Your task to perform on an android device: delete location history Image 0: 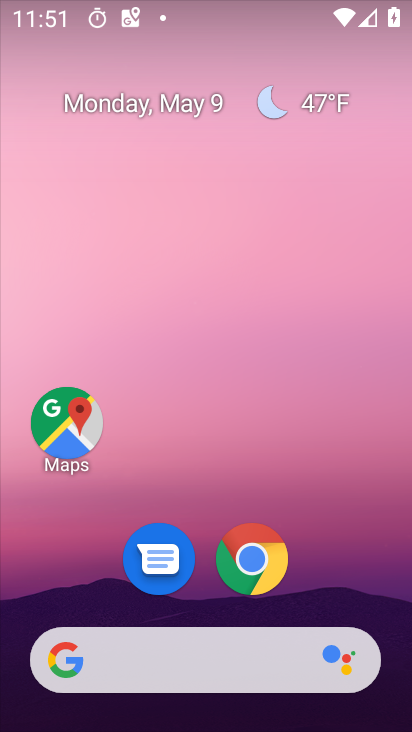
Step 0: click (50, 421)
Your task to perform on an android device: delete location history Image 1: 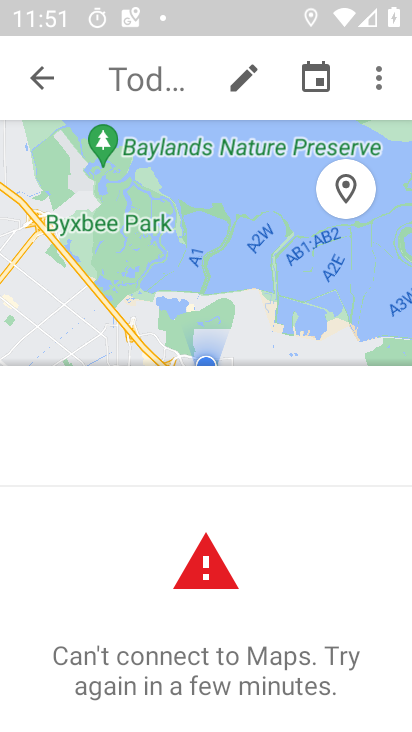
Step 1: click (94, 133)
Your task to perform on an android device: delete location history Image 2: 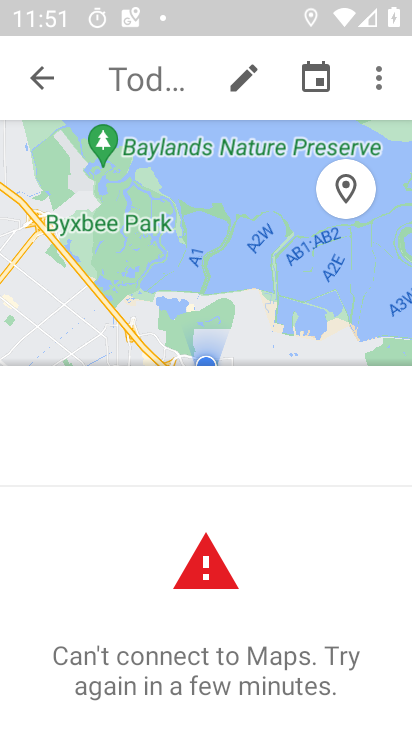
Step 2: click (44, 77)
Your task to perform on an android device: delete location history Image 3: 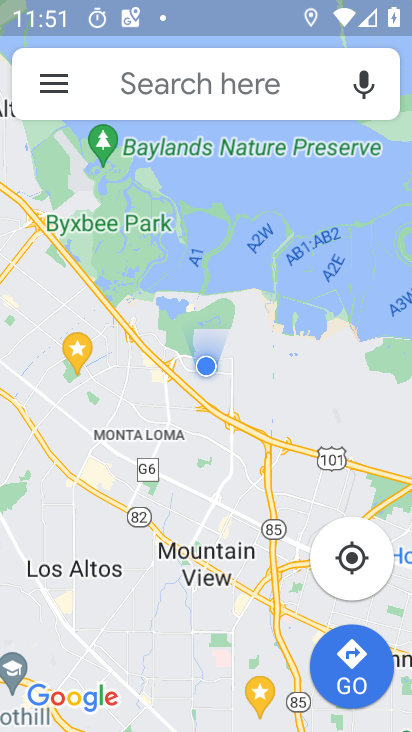
Step 3: click (44, 79)
Your task to perform on an android device: delete location history Image 4: 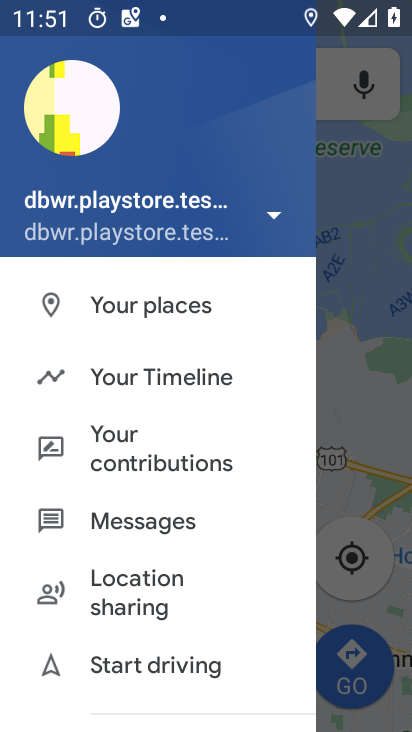
Step 4: click (124, 389)
Your task to perform on an android device: delete location history Image 5: 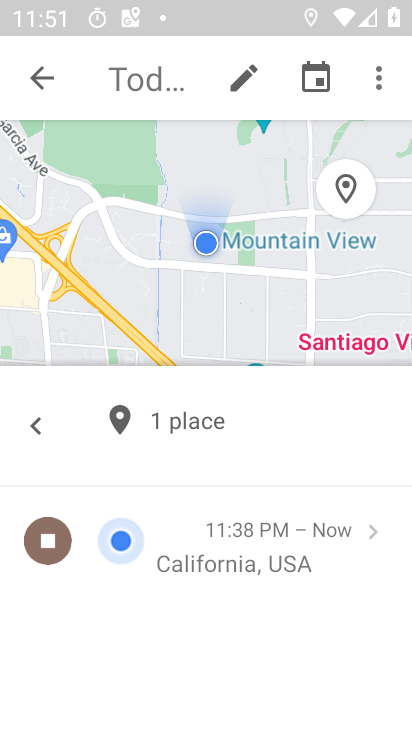
Step 5: click (393, 77)
Your task to perform on an android device: delete location history Image 6: 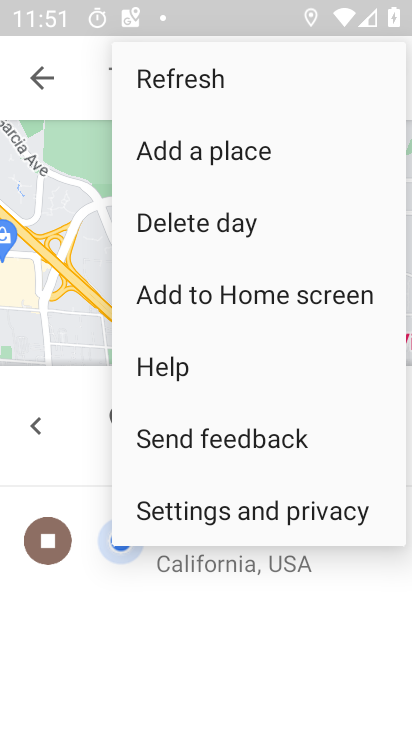
Step 6: click (234, 508)
Your task to perform on an android device: delete location history Image 7: 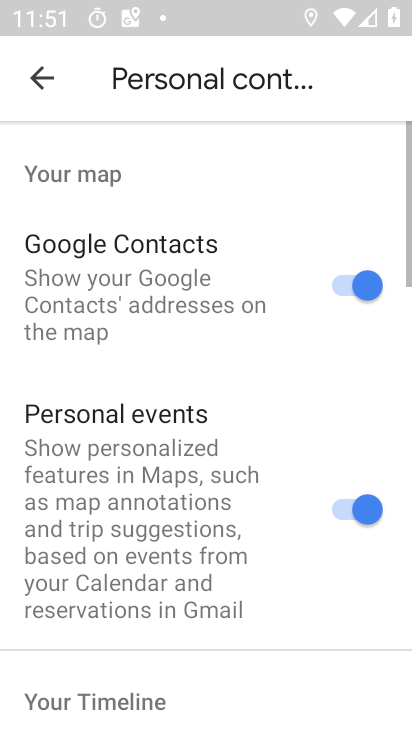
Step 7: drag from (145, 546) to (125, 84)
Your task to perform on an android device: delete location history Image 8: 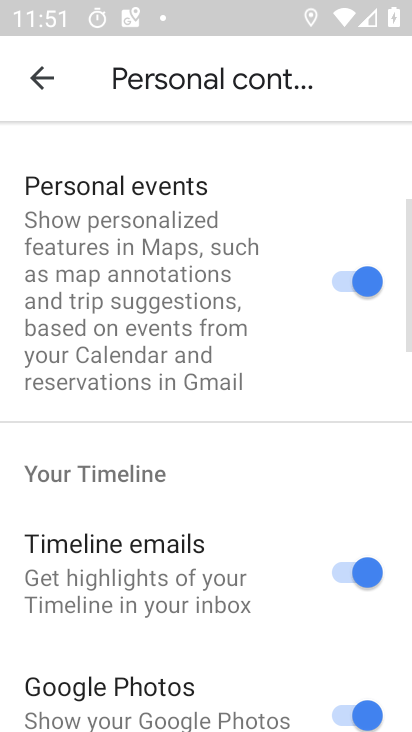
Step 8: drag from (176, 508) to (125, 246)
Your task to perform on an android device: delete location history Image 9: 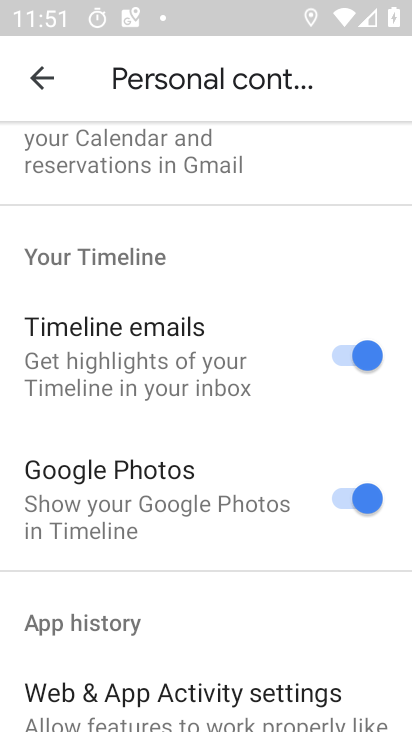
Step 9: drag from (139, 560) to (134, 131)
Your task to perform on an android device: delete location history Image 10: 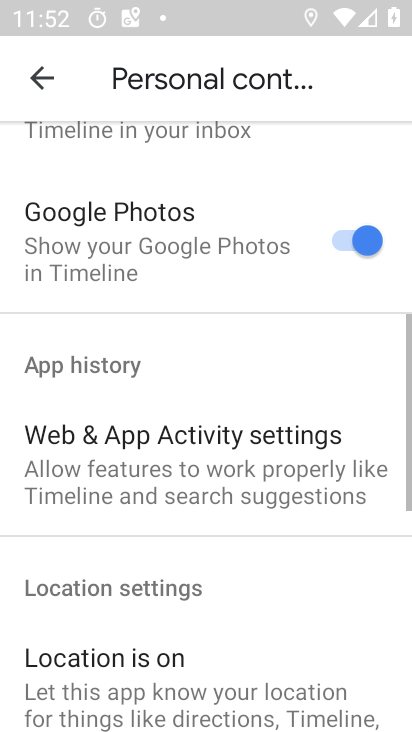
Step 10: drag from (163, 530) to (155, 284)
Your task to perform on an android device: delete location history Image 11: 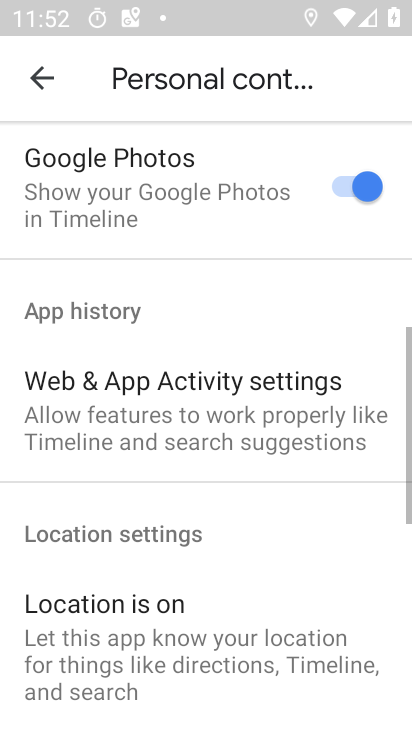
Step 11: drag from (222, 567) to (193, 279)
Your task to perform on an android device: delete location history Image 12: 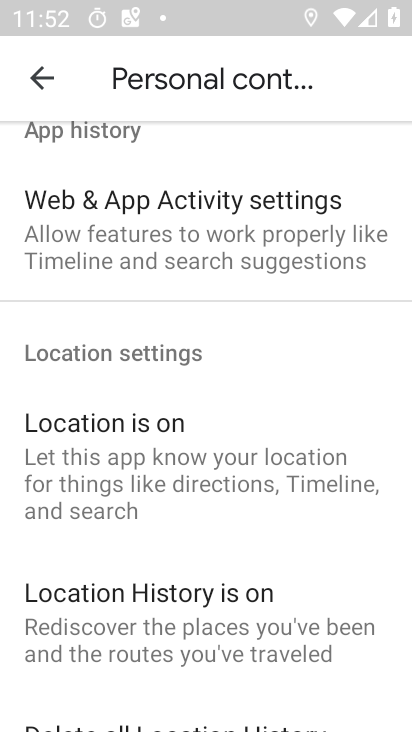
Step 12: drag from (146, 583) to (156, 27)
Your task to perform on an android device: delete location history Image 13: 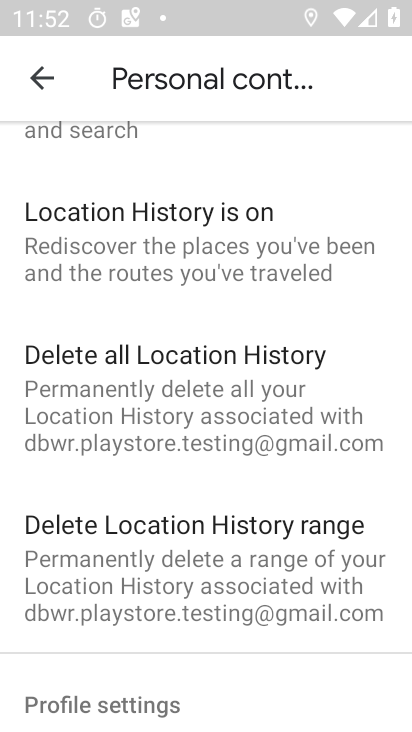
Step 13: click (129, 546)
Your task to perform on an android device: delete location history Image 14: 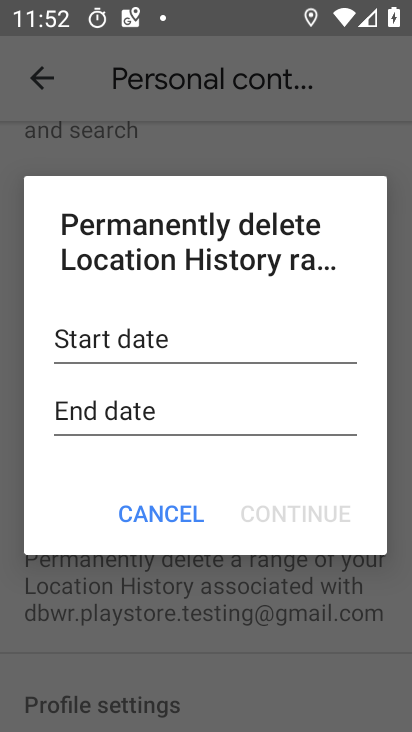
Step 14: click (169, 526)
Your task to perform on an android device: delete location history Image 15: 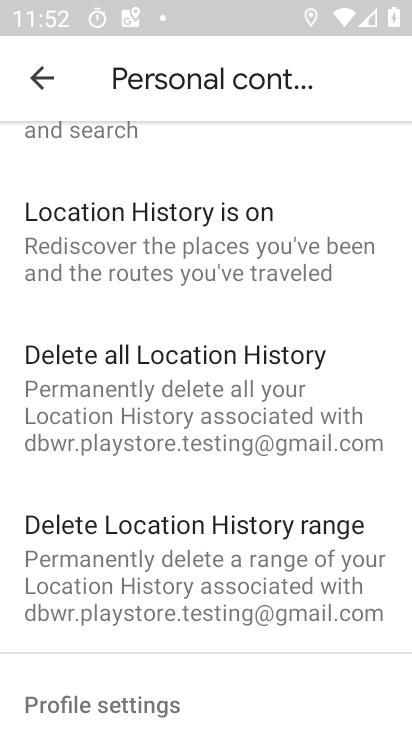
Step 15: click (161, 407)
Your task to perform on an android device: delete location history Image 16: 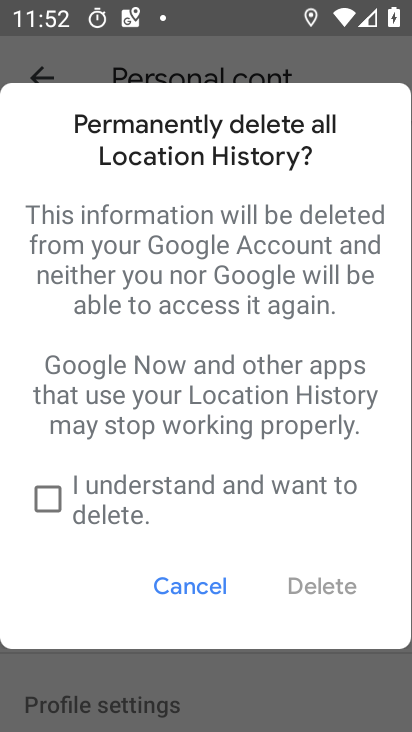
Step 16: click (181, 485)
Your task to perform on an android device: delete location history Image 17: 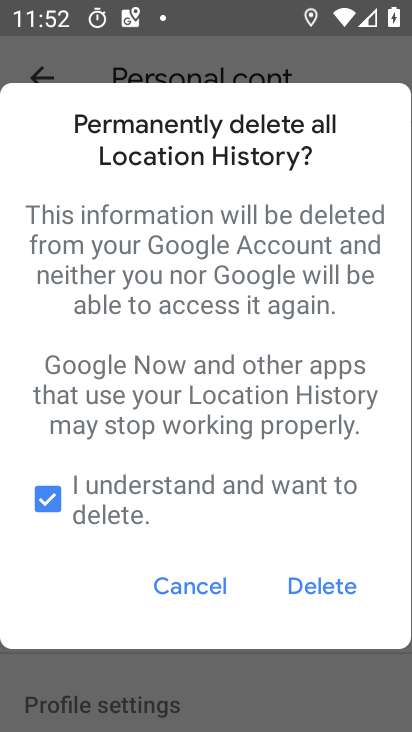
Step 17: click (317, 586)
Your task to perform on an android device: delete location history Image 18: 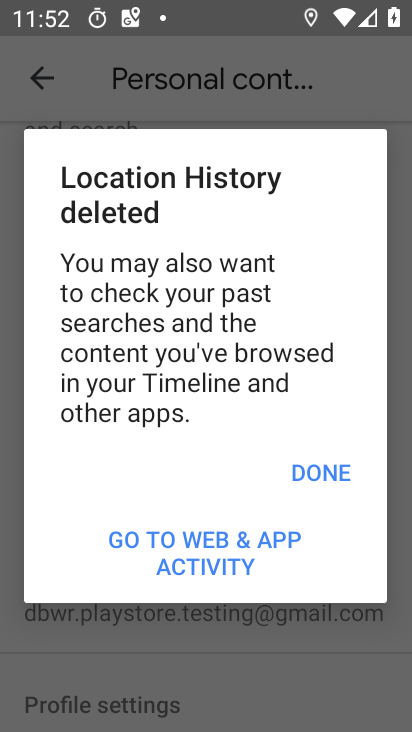
Step 18: click (318, 459)
Your task to perform on an android device: delete location history Image 19: 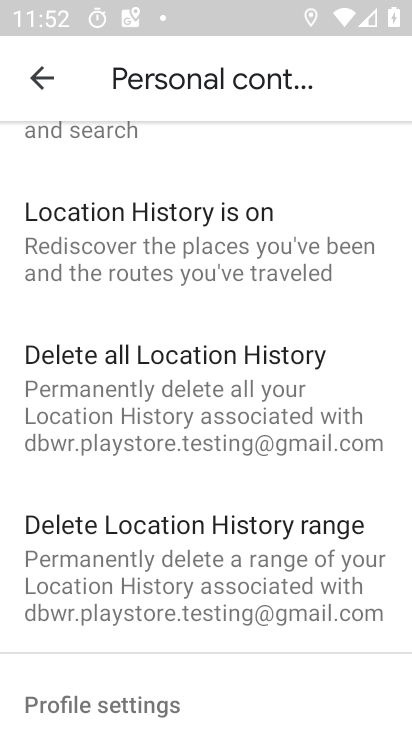
Step 19: task complete